Your task to perform on an android device: Open privacy settings Image 0: 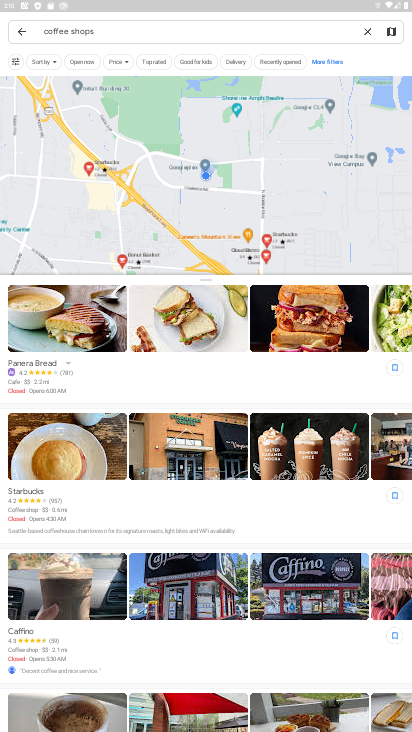
Step 0: press home button
Your task to perform on an android device: Open privacy settings Image 1: 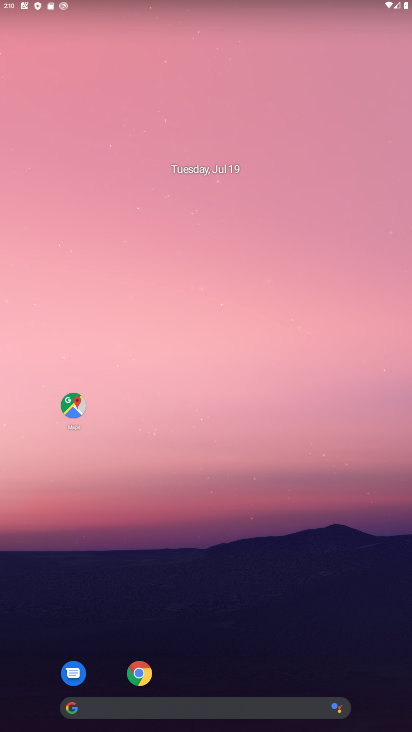
Step 1: drag from (205, 707) to (164, 221)
Your task to perform on an android device: Open privacy settings Image 2: 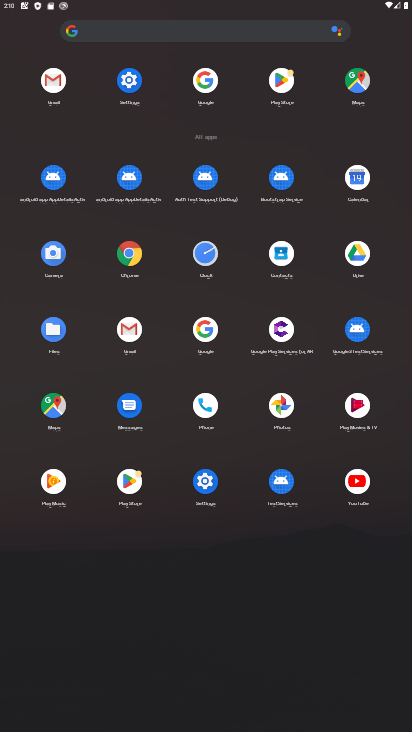
Step 2: click (131, 81)
Your task to perform on an android device: Open privacy settings Image 3: 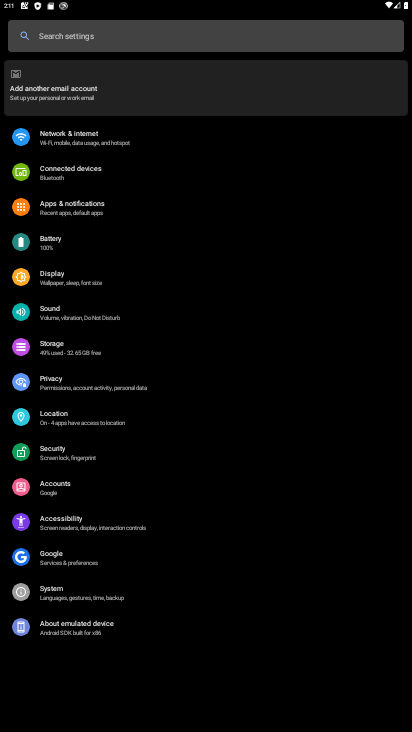
Step 3: click (70, 389)
Your task to perform on an android device: Open privacy settings Image 4: 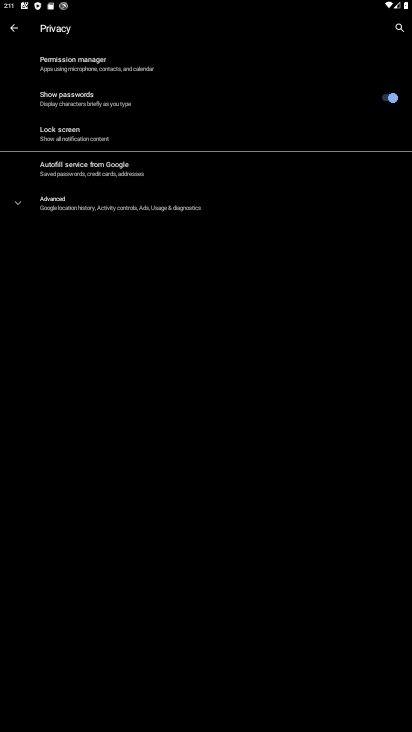
Step 4: task complete